Your task to perform on an android device: turn pop-ups off in chrome Image 0: 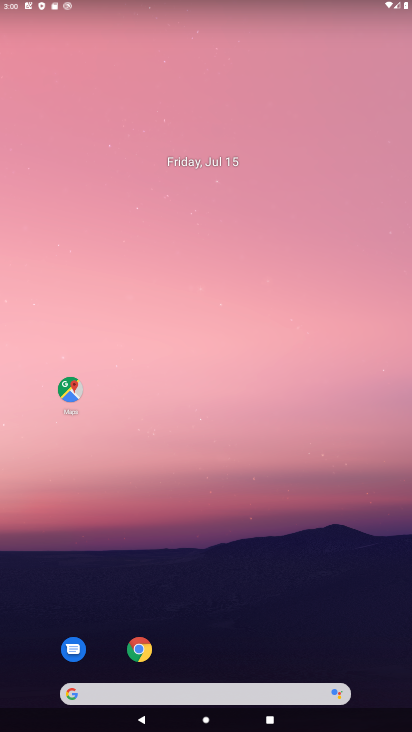
Step 0: click (225, 65)
Your task to perform on an android device: turn pop-ups off in chrome Image 1: 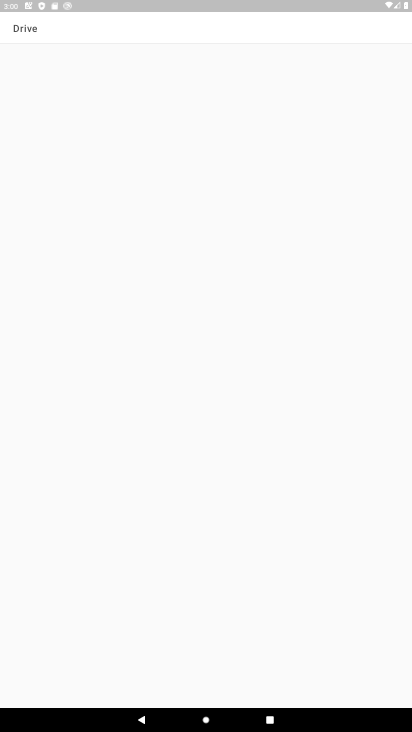
Step 1: drag from (279, 612) to (317, 228)
Your task to perform on an android device: turn pop-ups off in chrome Image 2: 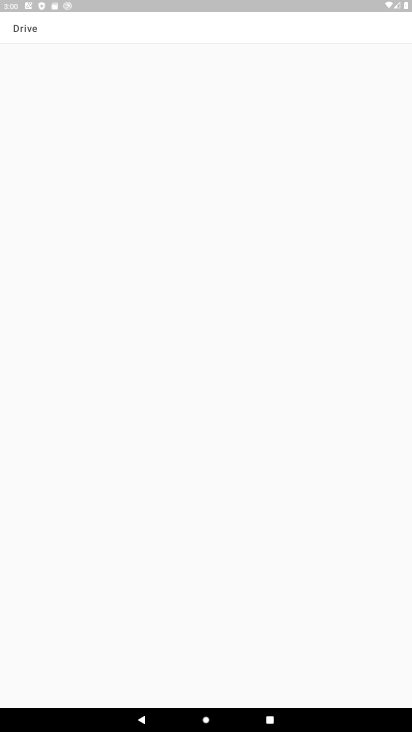
Step 2: press home button
Your task to perform on an android device: turn pop-ups off in chrome Image 3: 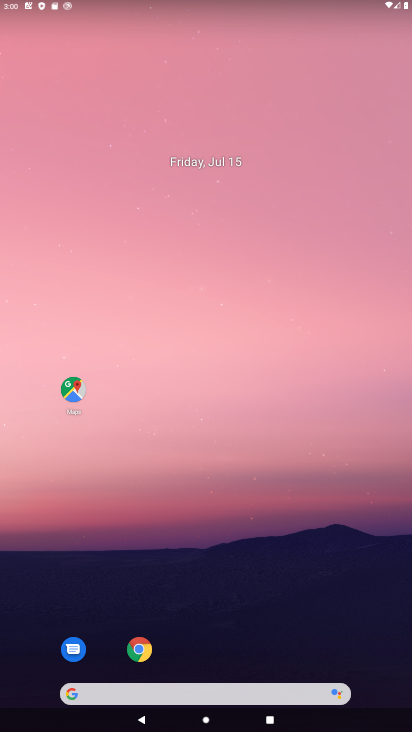
Step 3: drag from (272, 609) to (199, 213)
Your task to perform on an android device: turn pop-ups off in chrome Image 4: 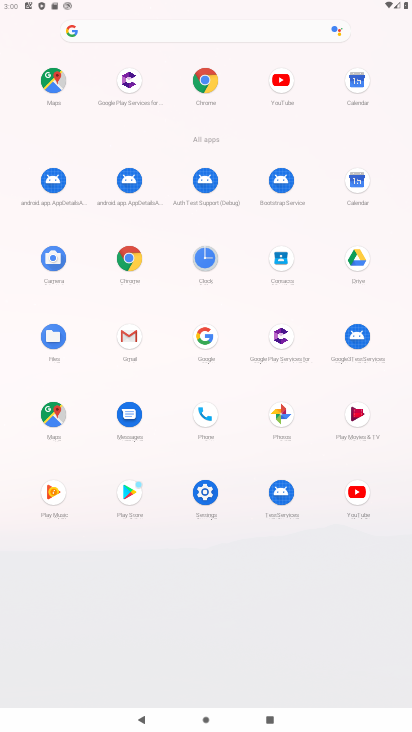
Step 4: click (128, 259)
Your task to perform on an android device: turn pop-ups off in chrome Image 5: 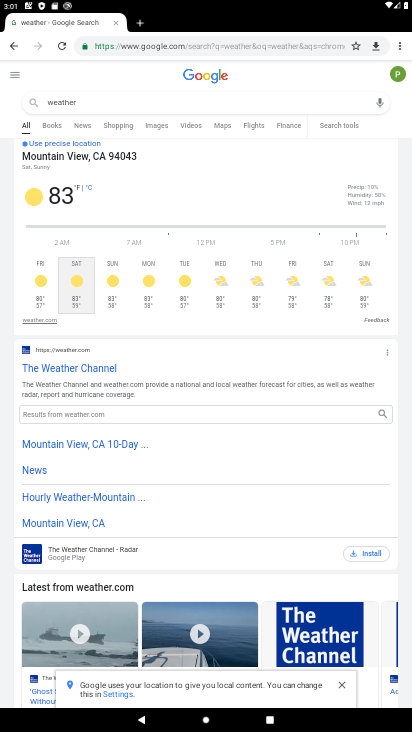
Step 5: drag from (402, 42) to (325, 289)
Your task to perform on an android device: turn pop-ups off in chrome Image 6: 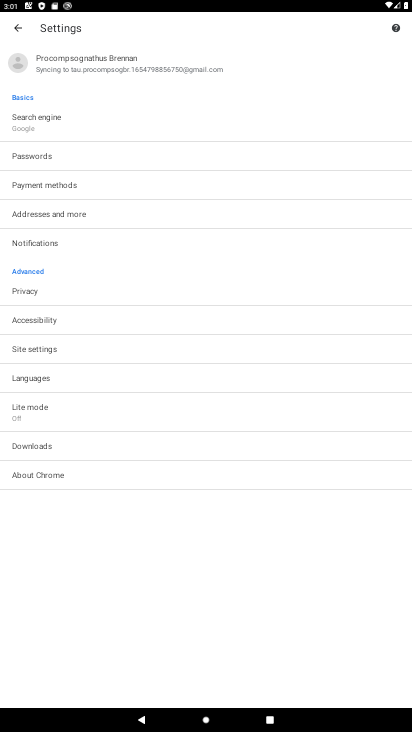
Step 6: click (53, 345)
Your task to perform on an android device: turn pop-ups off in chrome Image 7: 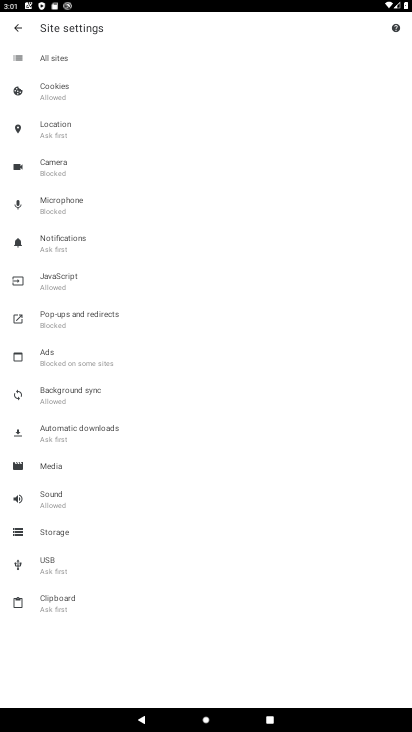
Step 7: click (107, 312)
Your task to perform on an android device: turn pop-ups off in chrome Image 8: 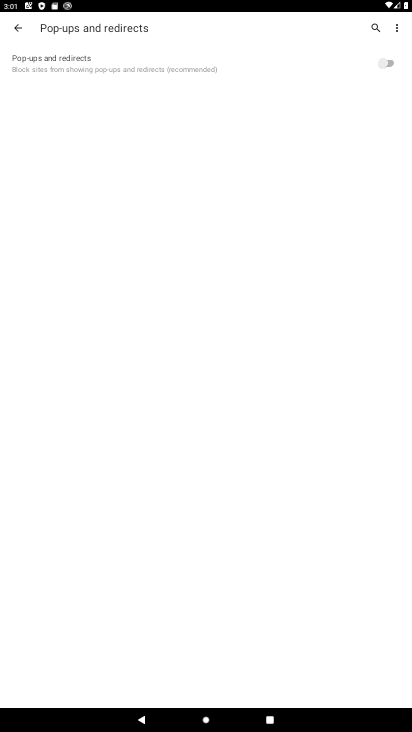
Step 8: task complete